Your task to perform on an android device: change timer sound Image 0: 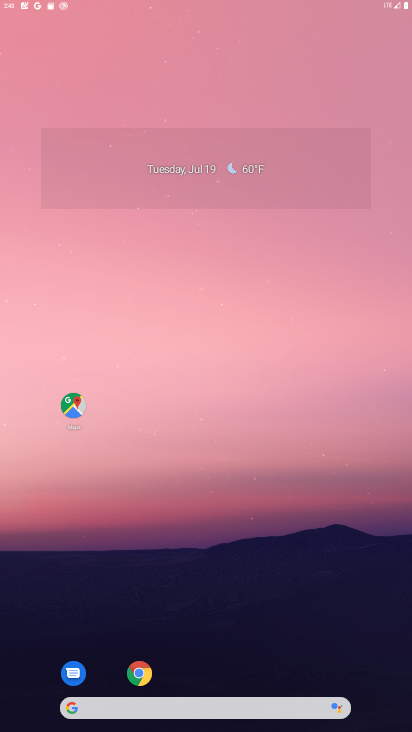
Step 0: drag from (155, 583) to (276, 136)
Your task to perform on an android device: change timer sound Image 1: 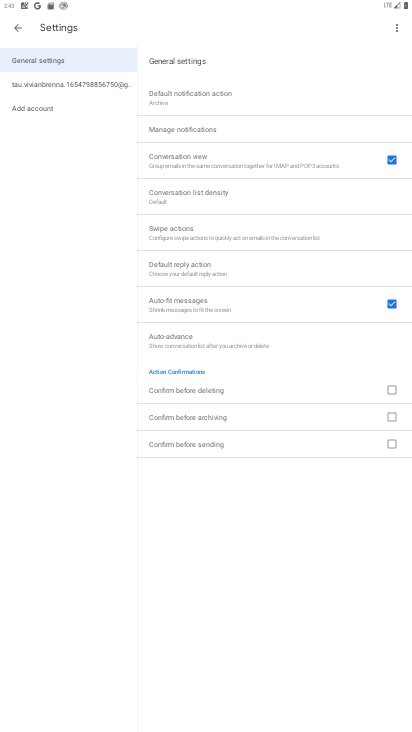
Step 1: press home button
Your task to perform on an android device: change timer sound Image 2: 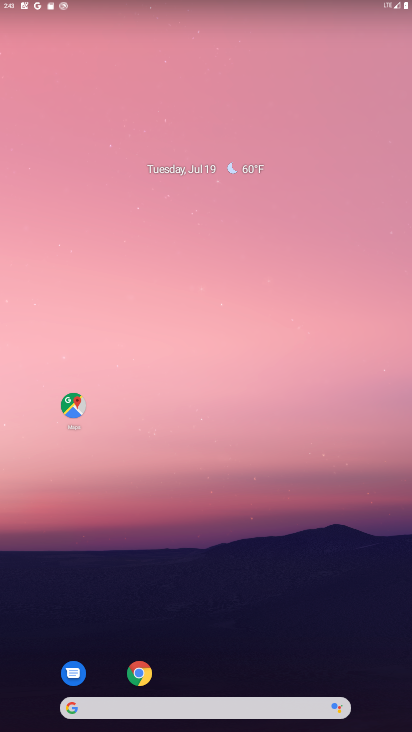
Step 2: drag from (178, 725) to (148, 185)
Your task to perform on an android device: change timer sound Image 3: 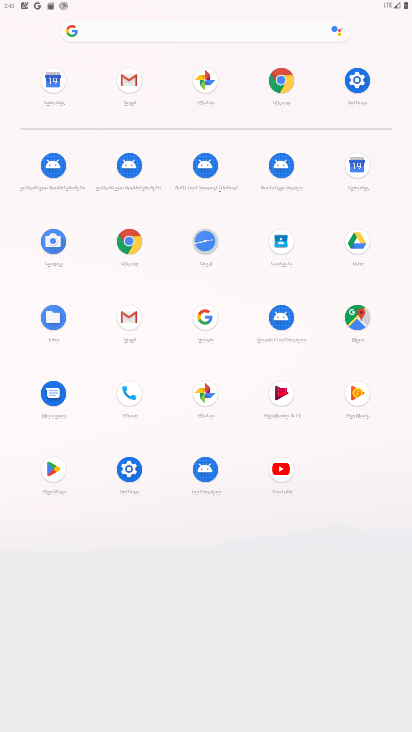
Step 3: click (213, 241)
Your task to perform on an android device: change timer sound Image 4: 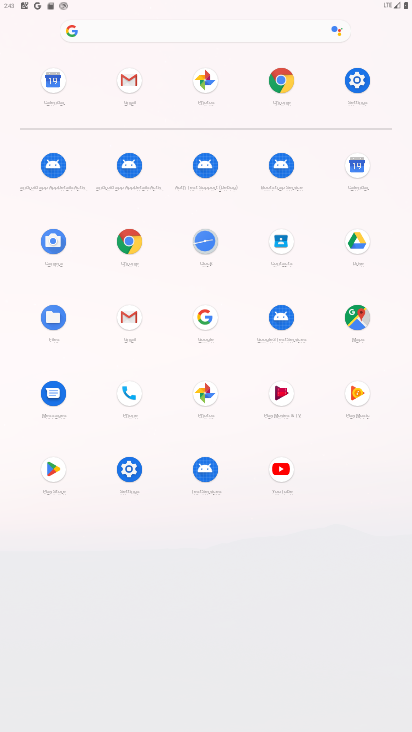
Step 4: click (213, 241)
Your task to perform on an android device: change timer sound Image 5: 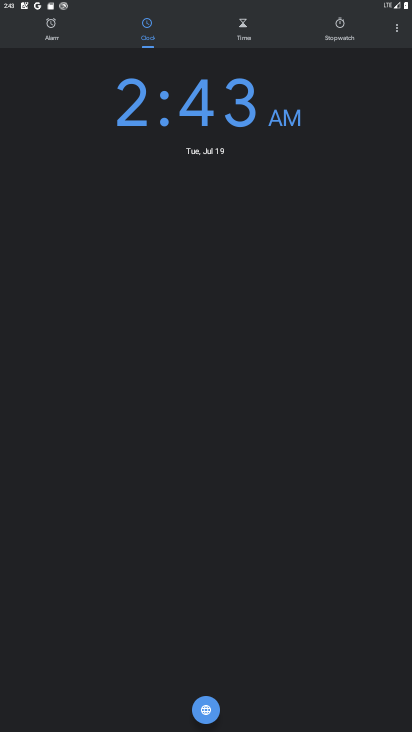
Step 5: click (394, 25)
Your task to perform on an android device: change timer sound Image 6: 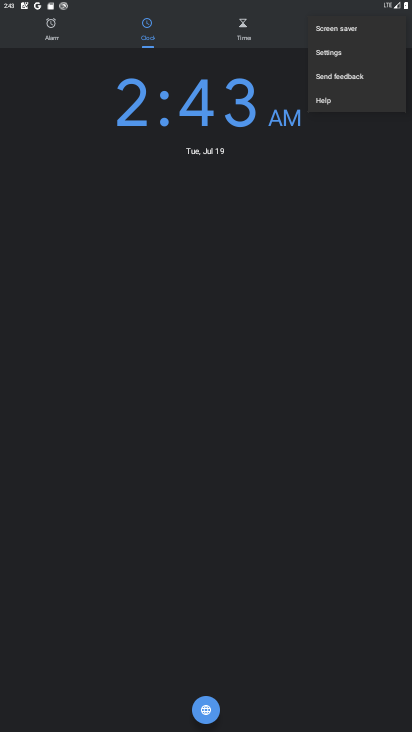
Step 6: click (351, 51)
Your task to perform on an android device: change timer sound Image 7: 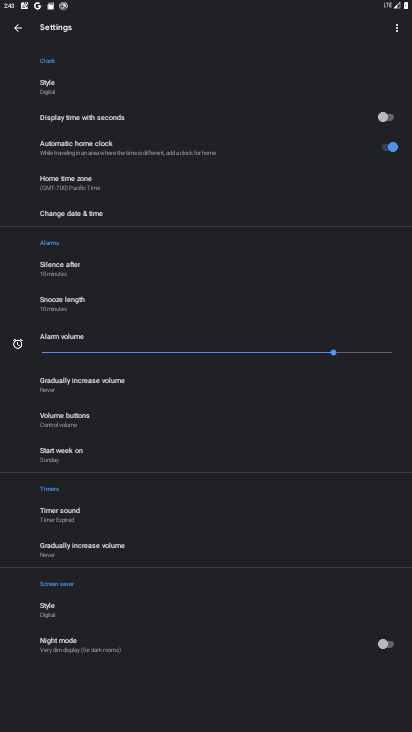
Step 7: click (66, 512)
Your task to perform on an android device: change timer sound Image 8: 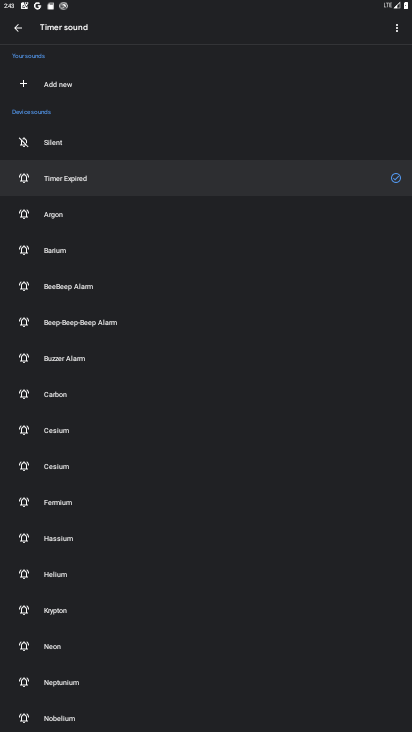
Step 8: click (61, 541)
Your task to perform on an android device: change timer sound Image 9: 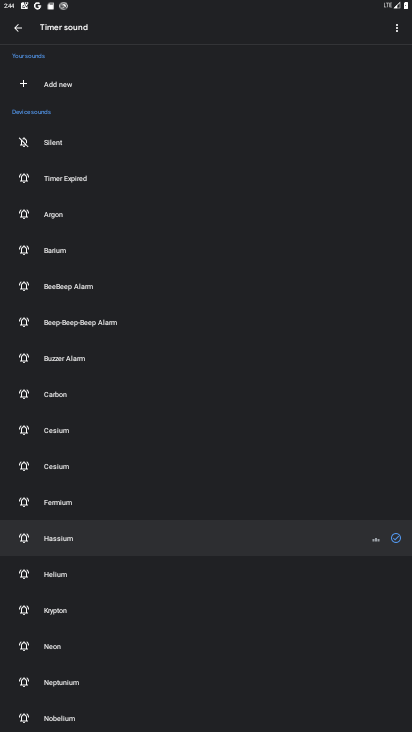
Step 9: task complete